Your task to perform on an android device: stop showing notifications on the lock screen Image 0: 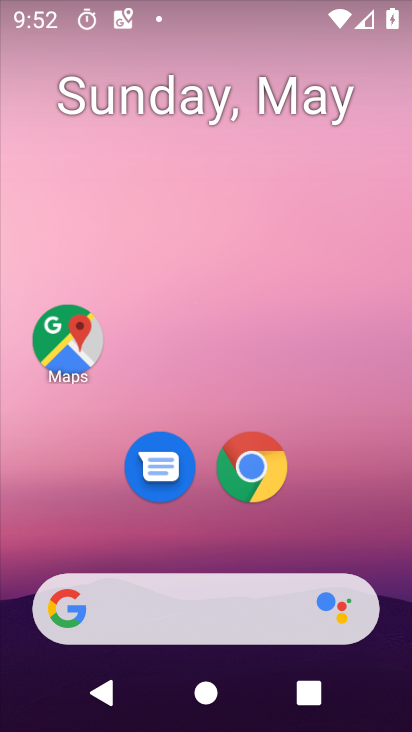
Step 0: drag from (206, 545) to (208, 248)
Your task to perform on an android device: stop showing notifications on the lock screen Image 1: 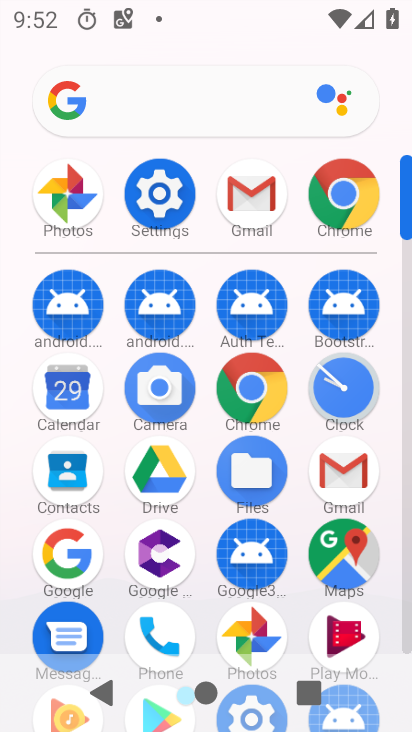
Step 1: click (135, 212)
Your task to perform on an android device: stop showing notifications on the lock screen Image 2: 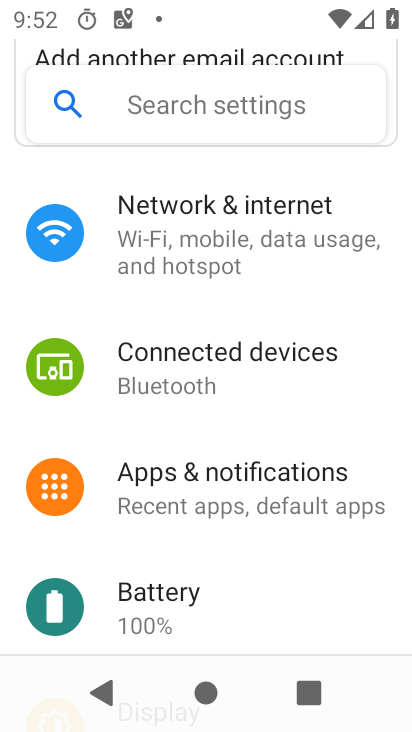
Step 2: click (247, 478)
Your task to perform on an android device: stop showing notifications on the lock screen Image 3: 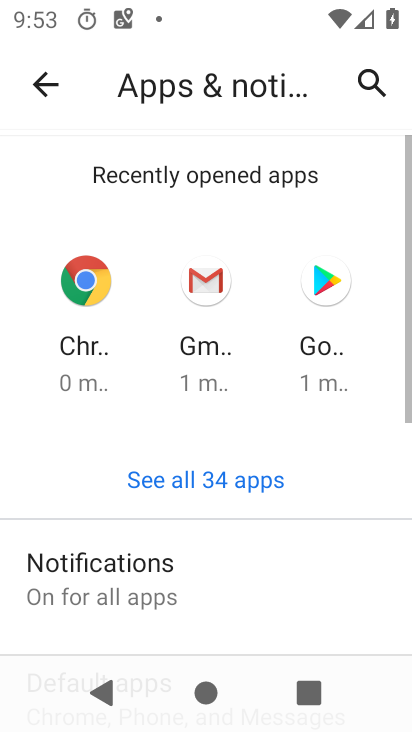
Step 3: drag from (265, 560) to (256, 378)
Your task to perform on an android device: stop showing notifications on the lock screen Image 4: 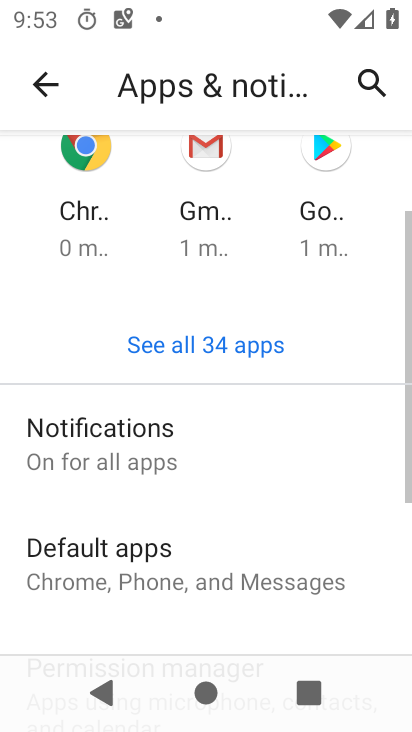
Step 4: click (217, 435)
Your task to perform on an android device: stop showing notifications on the lock screen Image 5: 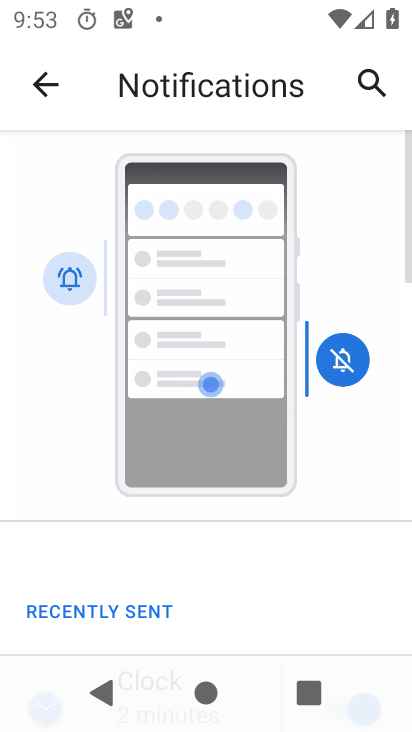
Step 5: drag from (195, 599) to (221, 249)
Your task to perform on an android device: stop showing notifications on the lock screen Image 6: 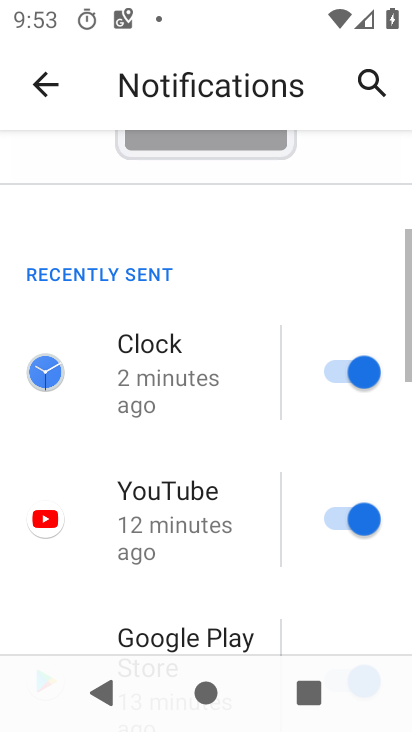
Step 6: drag from (243, 606) to (260, 266)
Your task to perform on an android device: stop showing notifications on the lock screen Image 7: 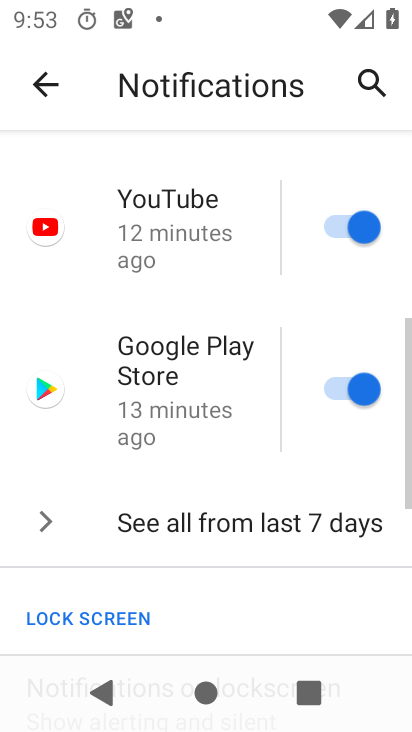
Step 7: drag from (191, 574) to (226, 267)
Your task to perform on an android device: stop showing notifications on the lock screen Image 8: 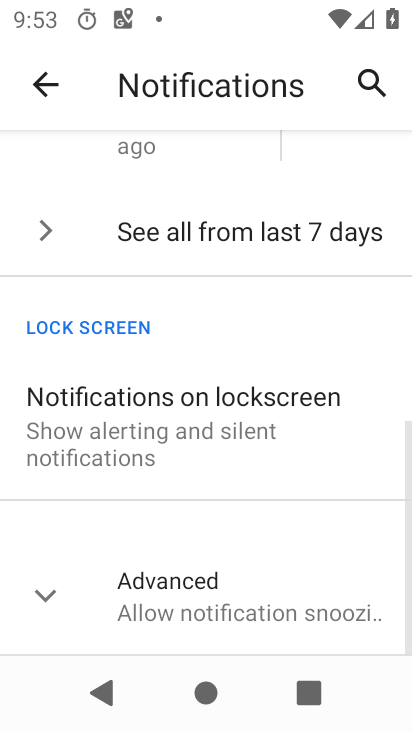
Step 8: click (224, 394)
Your task to perform on an android device: stop showing notifications on the lock screen Image 9: 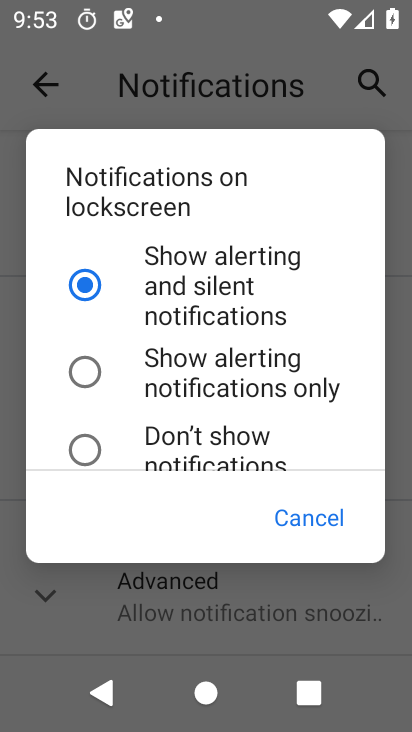
Step 9: click (188, 434)
Your task to perform on an android device: stop showing notifications on the lock screen Image 10: 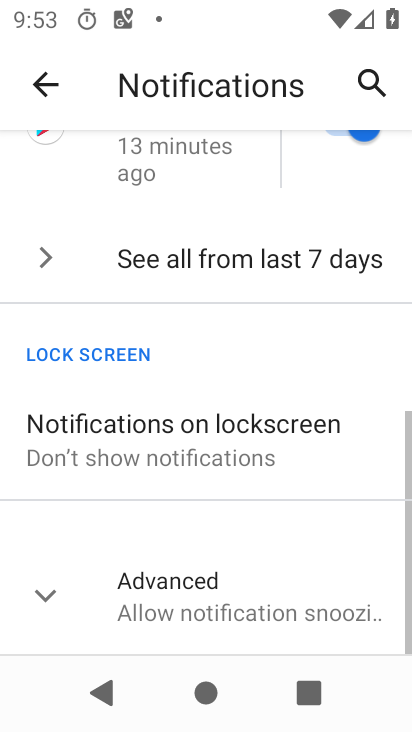
Step 10: task complete